Your task to perform on an android device: refresh tabs in the chrome app Image 0: 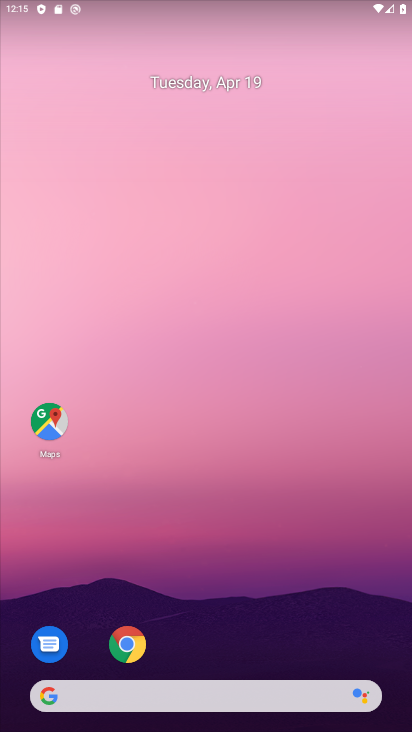
Step 0: click (131, 643)
Your task to perform on an android device: refresh tabs in the chrome app Image 1: 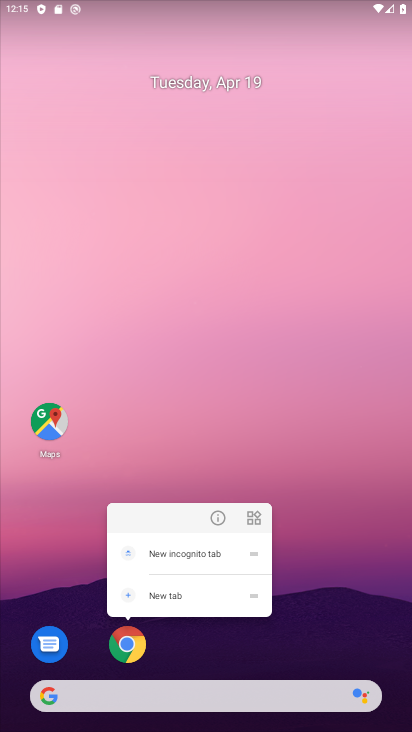
Step 1: click (131, 643)
Your task to perform on an android device: refresh tabs in the chrome app Image 2: 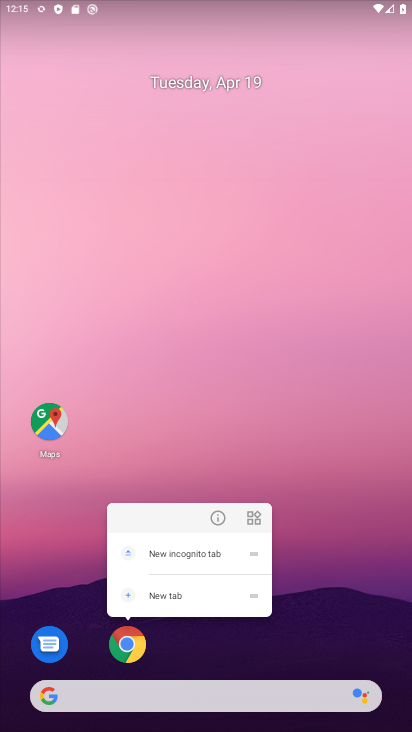
Step 2: click (131, 643)
Your task to perform on an android device: refresh tabs in the chrome app Image 3: 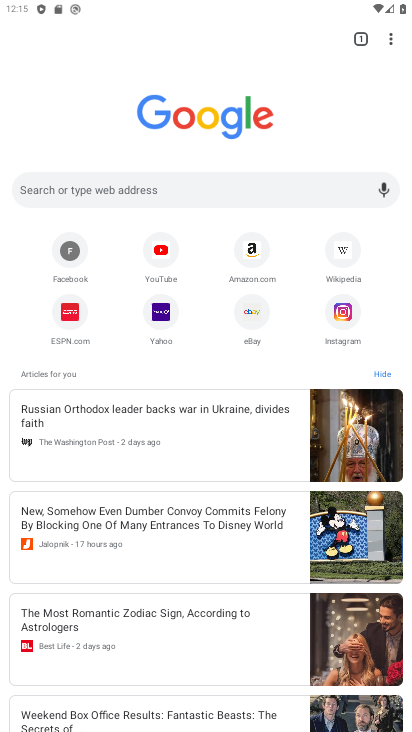
Step 3: click (162, 195)
Your task to perform on an android device: refresh tabs in the chrome app Image 4: 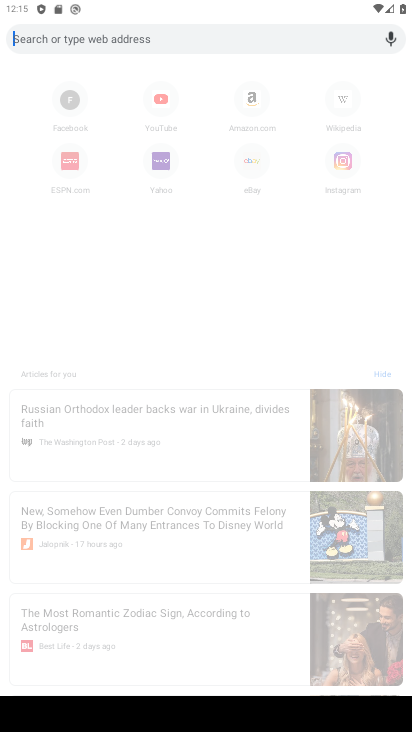
Step 4: click (162, 112)
Your task to perform on an android device: refresh tabs in the chrome app Image 5: 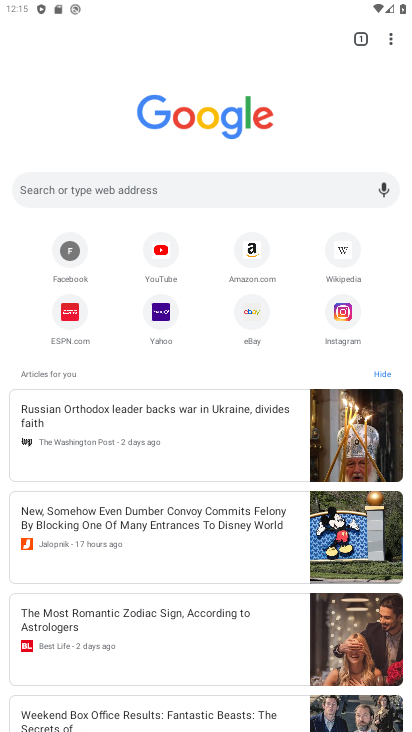
Step 5: click (166, 238)
Your task to perform on an android device: refresh tabs in the chrome app Image 6: 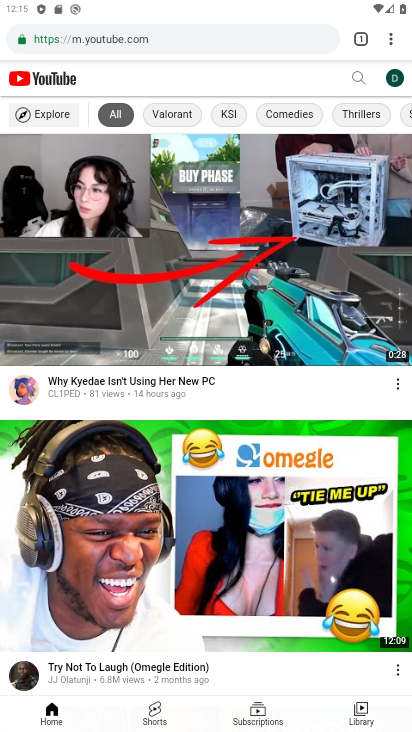
Step 6: click (362, 33)
Your task to perform on an android device: refresh tabs in the chrome app Image 7: 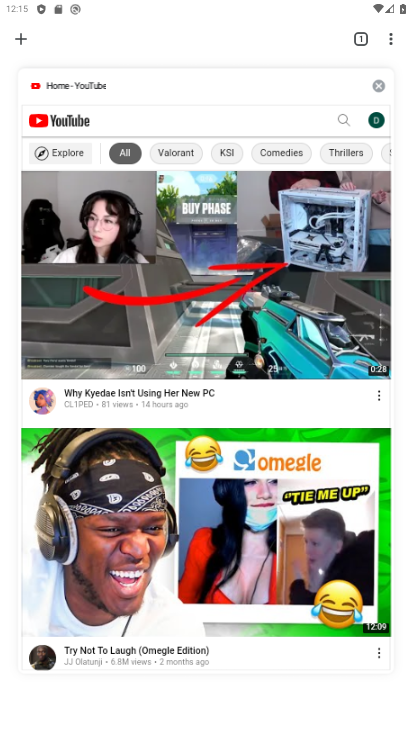
Step 7: click (399, 47)
Your task to perform on an android device: refresh tabs in the chrome app Image 8: 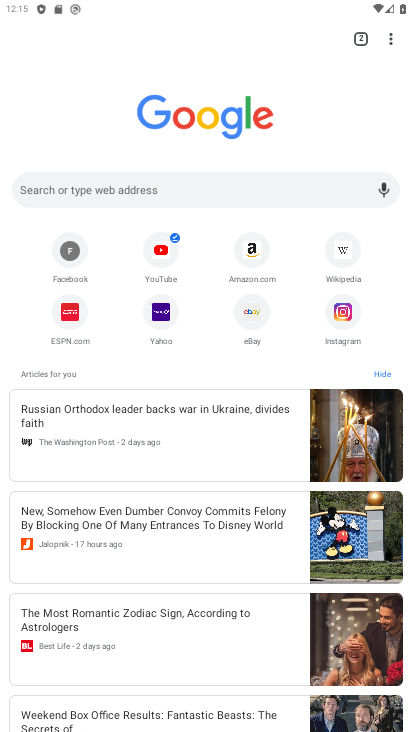
Step 8: click (389, 43)
Your task to perform on an android device: refresh tabs in the chrome app Image 9: 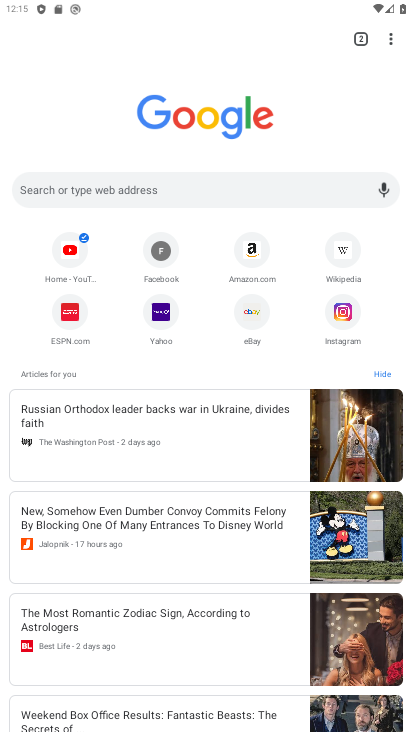
Step 9: task complete